Your task to perform on an android device: Go to Maps Image 0: 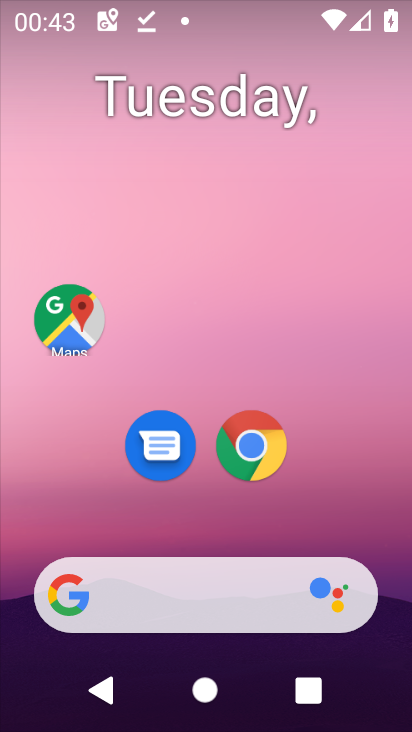
Step 0: click (63, 323)
Your task to perform on an android device: Go to Maps Image 1: 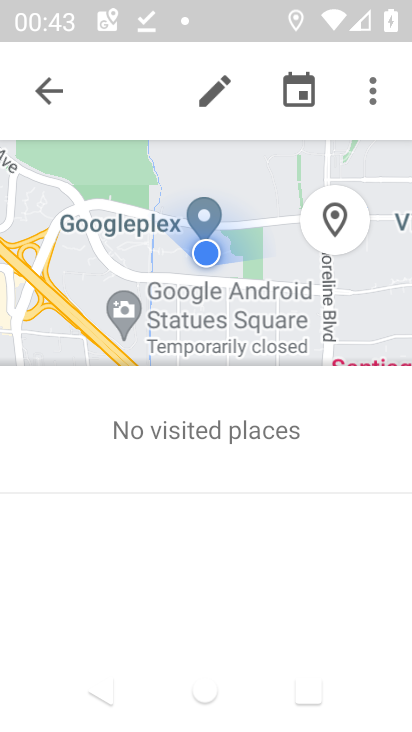
Step 1: click (48, 93)
Your task to perform on an android device: Go to Maps Image 2: 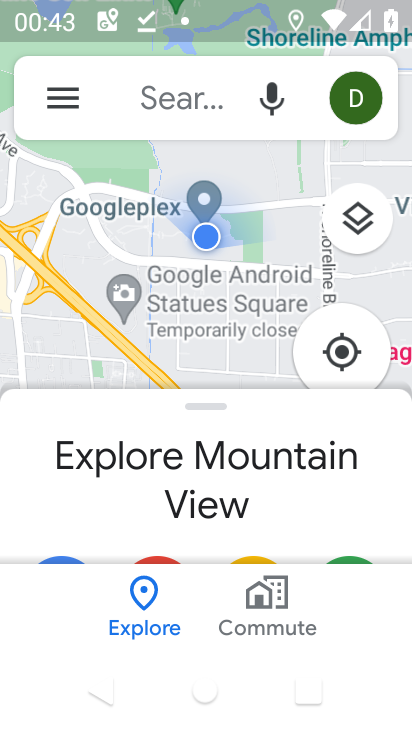
Step 2: task complete